Your task to perform on an android device: Search for seafood restaurants on Google Maps Image 0: 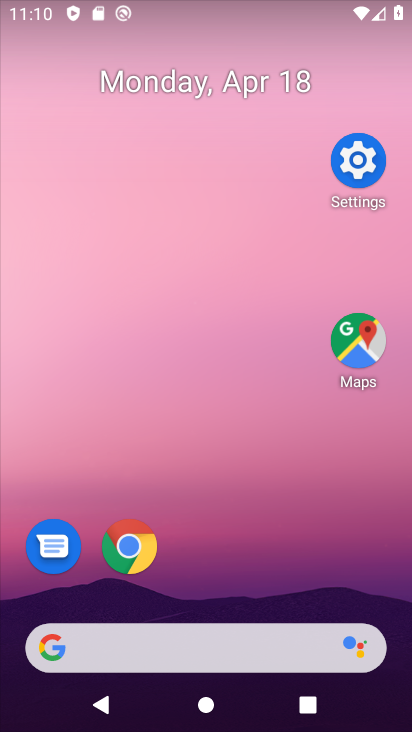
Step 0: click (351, 345)
Your task to perform on an android device: Search for seafood restaurants on Google Maps Image 1: 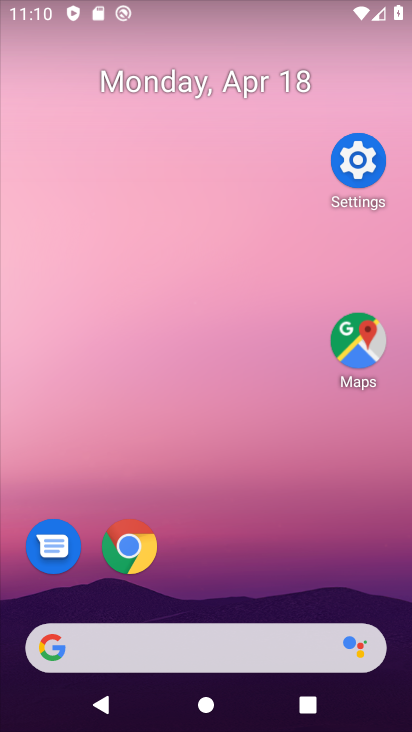
Step 1: click (362, 353)
Your task to perform on an android device: Search for seafood restaurants on Google Maps Image 2: 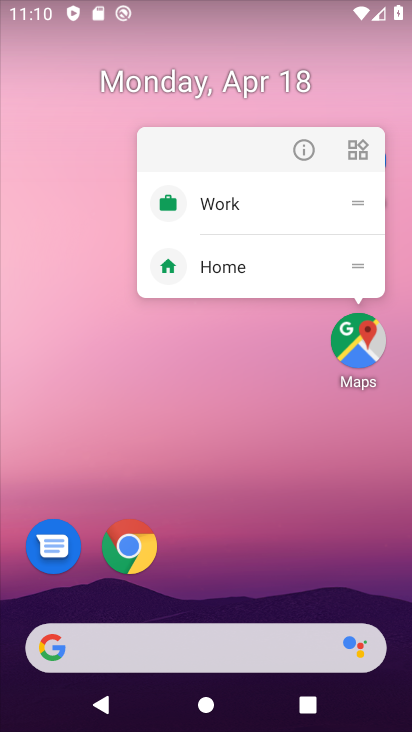
Step 2: click (361, 355)
Your task to perform on an android device: Search for seafood restaurants on Google Maps Image 3: 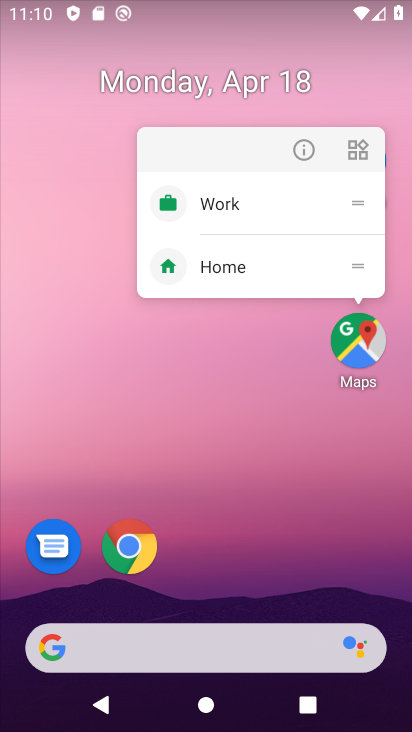
Step 3: click (361, 355)
Your task to perform on an android device: Search for seafood restaurants on Google Maps Image 4: 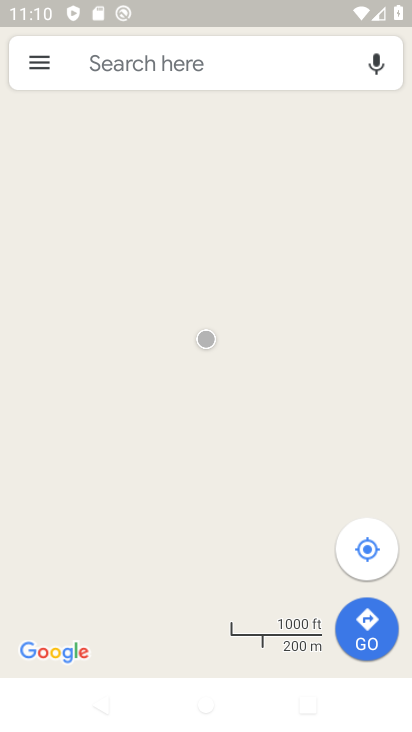
Step 4: click (103, 54)
Your task to perform on an android device: Search for seafood restaurants on Google Maps Image 5: 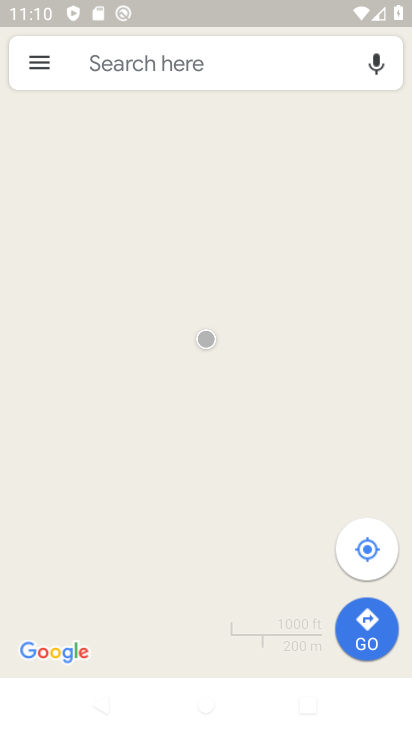
Step 5: click (103, 54)
Your task to perform on an android device: Search for seafood restaurants on Google Maps Image 6: 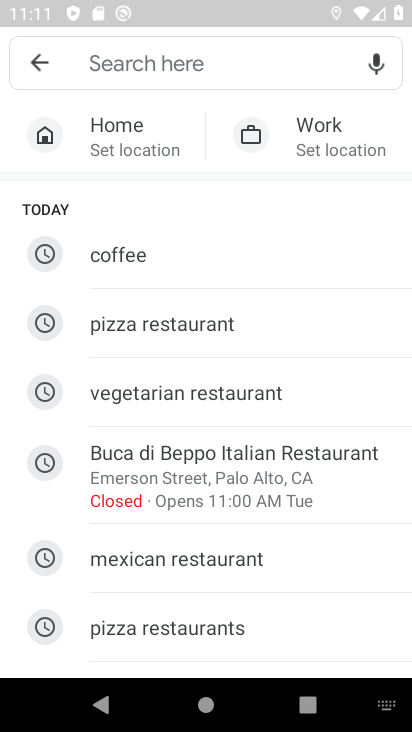
Step 6: type "seafood restaurants"
Your task to perform on an android device: Search for seafood restaurants on Google Maps Image 7: 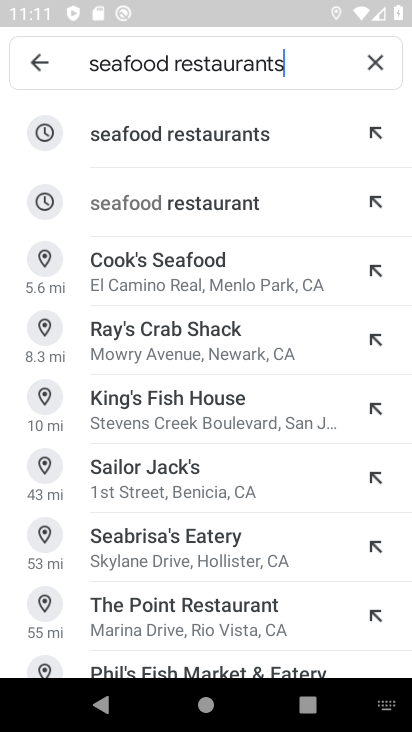
Step 7: click (148, 133)
Your task to perform on an android device: Search for seafood restaurants on Google Maps Image 8: 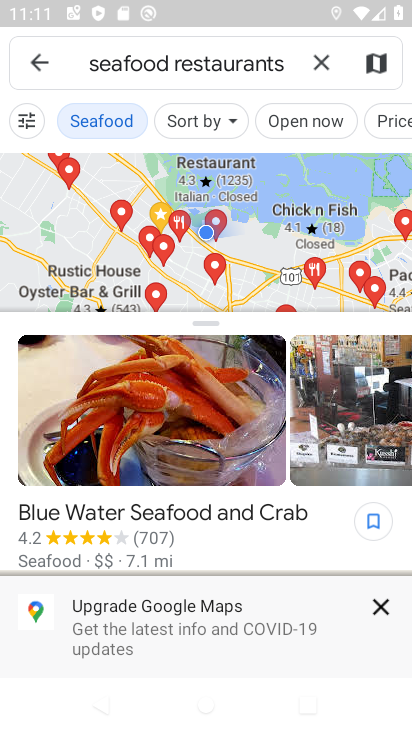
Step 8: task complete